Your task to perform on an android device: Go to settings Image 0: 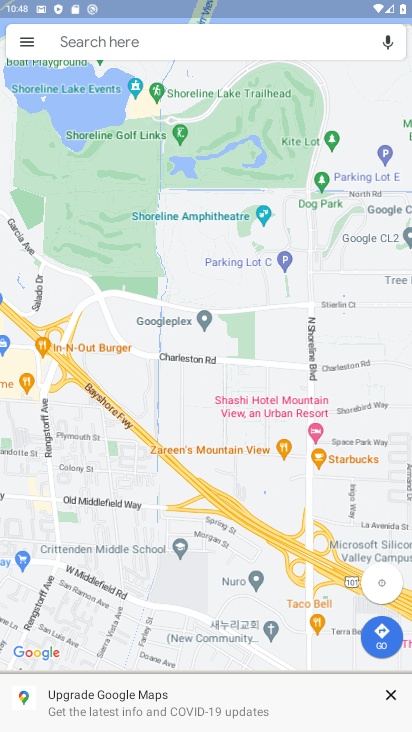
Step 0: press home button
Your task to perform on an android device: Go to settings Image 1: 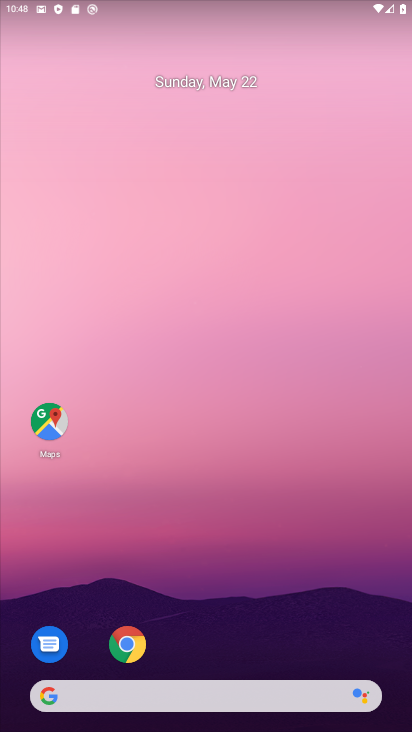
Step 1: drag from (246, 655) to (245, 140)
Your task to perform on an android device: Go to settings Image 2: 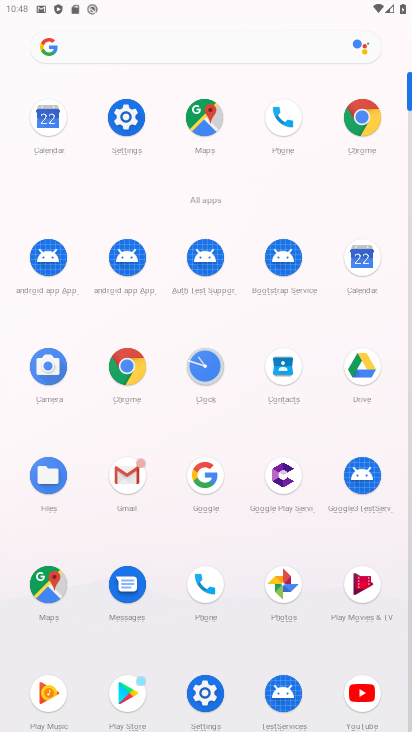
Step 2: click (115, 114)
Your task to perform on an android device: Go to settings Image 3: 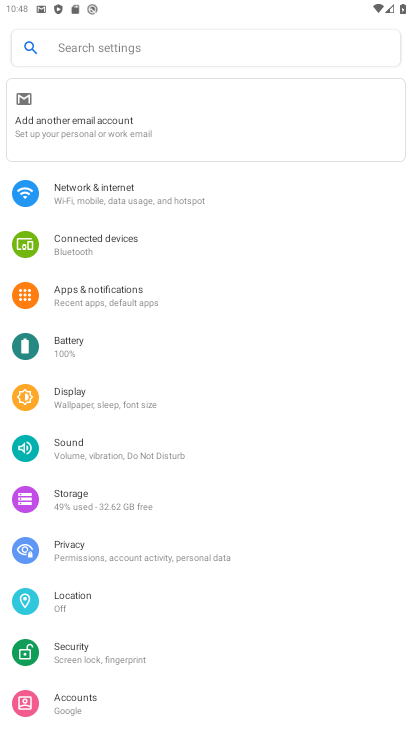
Step 3: task complete